Your task to perform on an android device: turn off javascript in the chrome app Image 0: 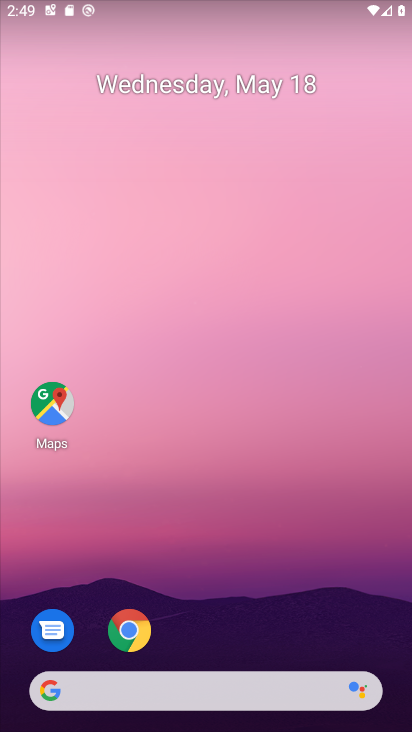
Step 0: click (125, 620)
Your task to perform on an android device: turn off javascript in the chrome app Image 1: 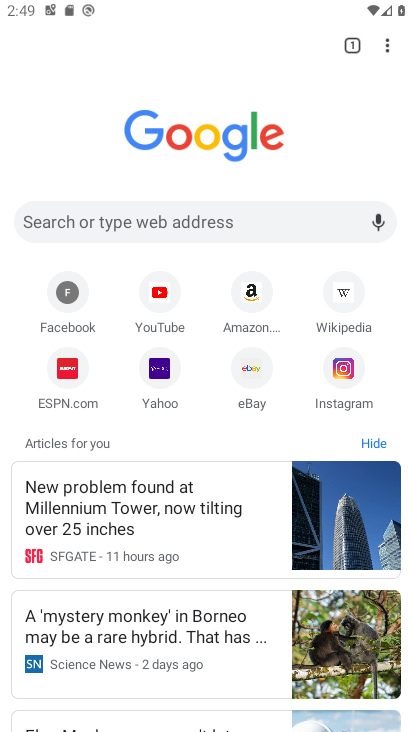
Step 1: click (389, 41)
Your task to perform on an android device: turn off javascript in the chrome app Image 2: 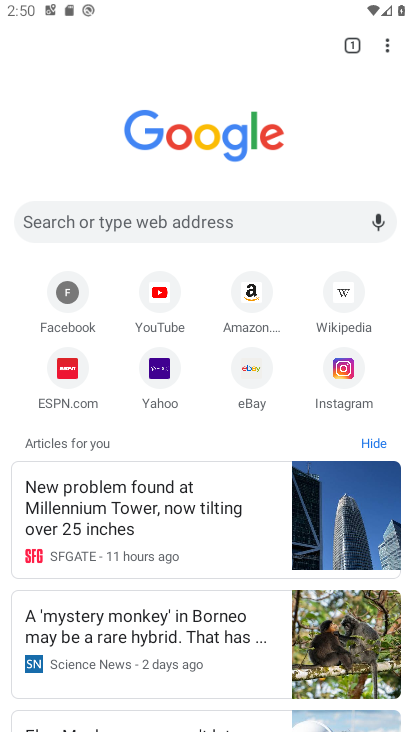
Step 2: click (384, 38)
Your task to perform on an android device: turn off javascript in the chrome app Image 3: 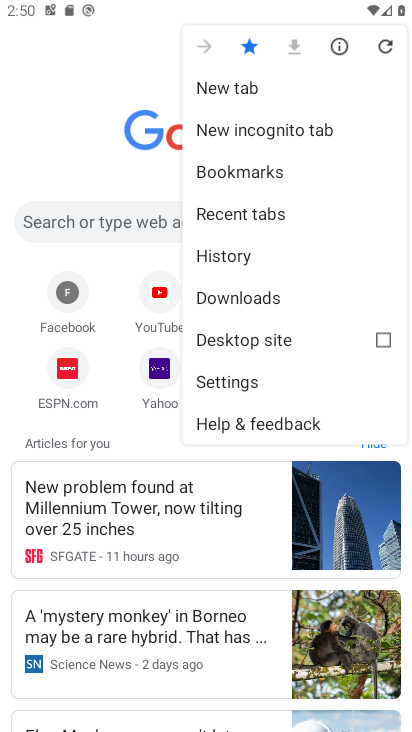
Step 3: click (260, 379)
Your task to perform on an android device: turn off javascript in the chrome app Image 4: 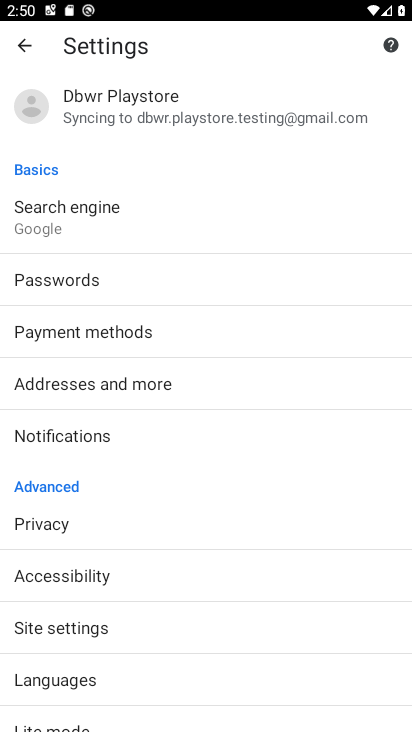
Step 4: click (131, 627)
Your task to perform on an android device: turn off javascript in the chrome app Image 5: 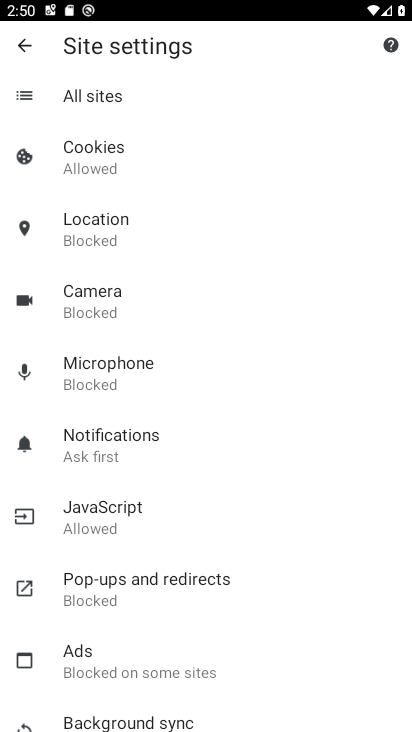
Step 5: click (155, 513)
Your task to perform on an android device: turn off javascript in the chrome app Image 6: 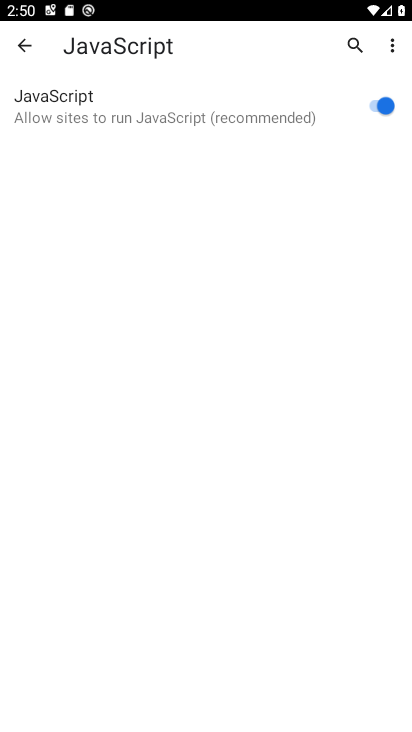
Step 6: click (369, 104)
Your task to perform on an android device: turn off javascript in the chrome app Image 7: 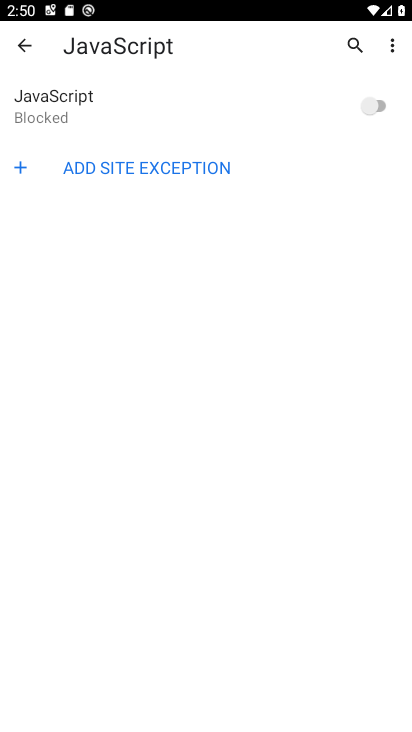
Step 7: task complete